Your task to perform on an android device: stop showing notifications on the lock screen Image 0: 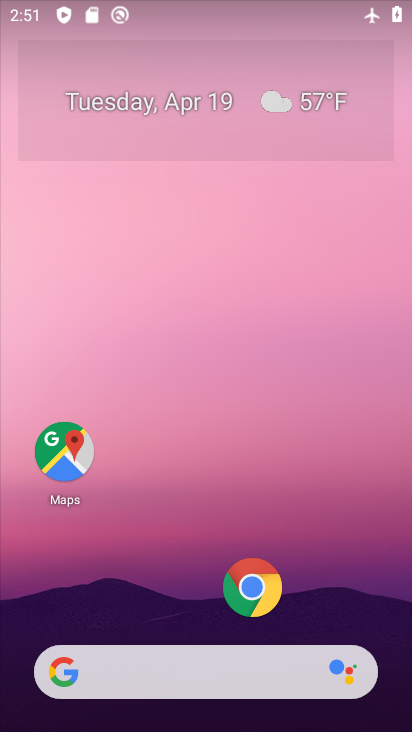
Step 0: drag from (169, 556) to (220, 166)
Your task to perform on an android device: stop showing notifications on the lock screen Image 1: 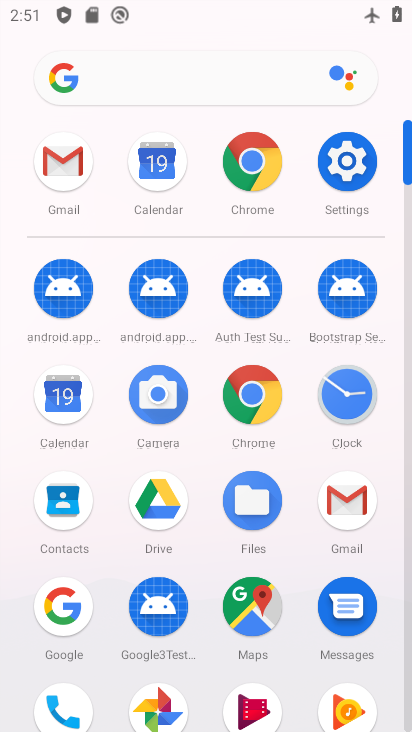
Step 1: click (345, 164)
Your task to perform on an android device: stop showing notifications on the lock screen Image 2: 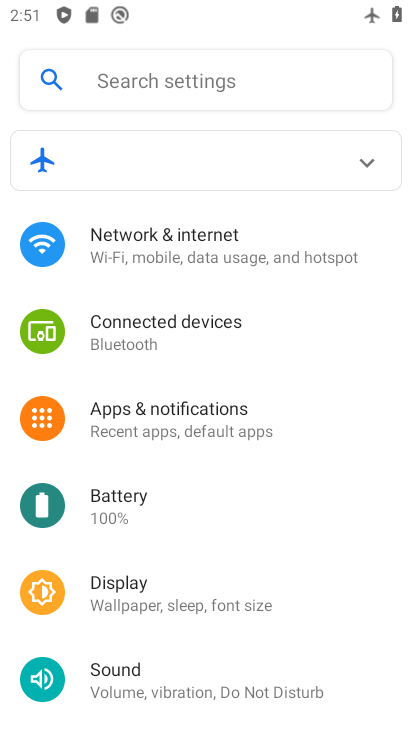
Step 2: click (182, 424)
Your task to perform on an android device: stop showing notifications on the lock screen Image 3: 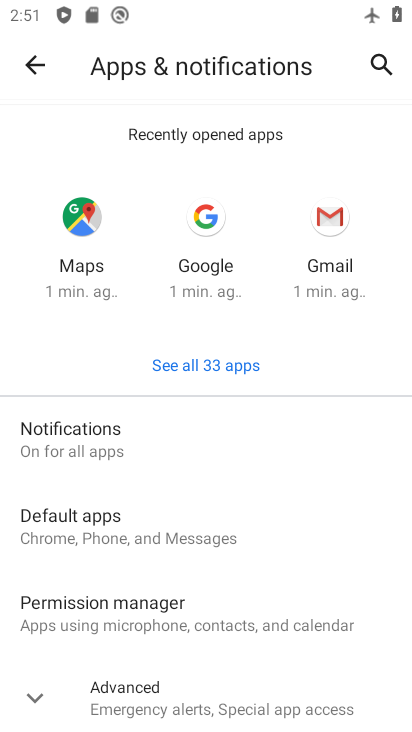
Step 3: click (121, 447)
Your task to perform on an android device: stop showing notifications on the lock screen Image 4: 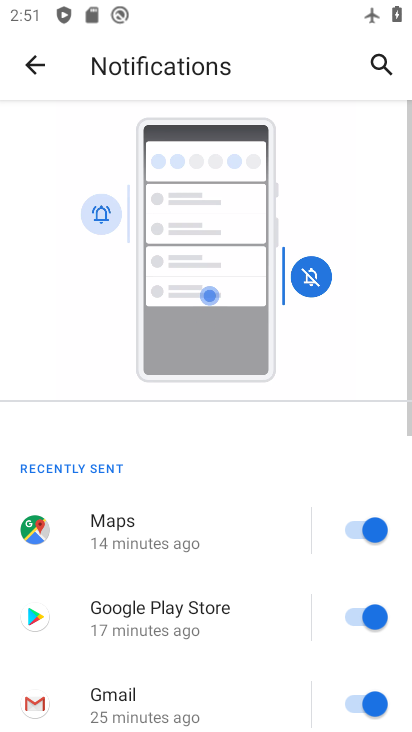
Step 4: drag from (140, 595) to (231, 206)
Your task to perform on an android device: stop showing notifications on the lock screen Image 5: 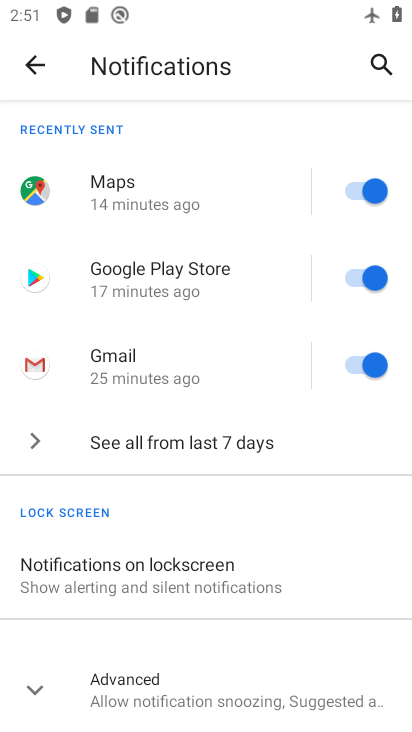
Step 5: drag from (129, 553) to (172, 392)
Your task to perform on an android device: stop showing notifications on the lock screen Image 6: 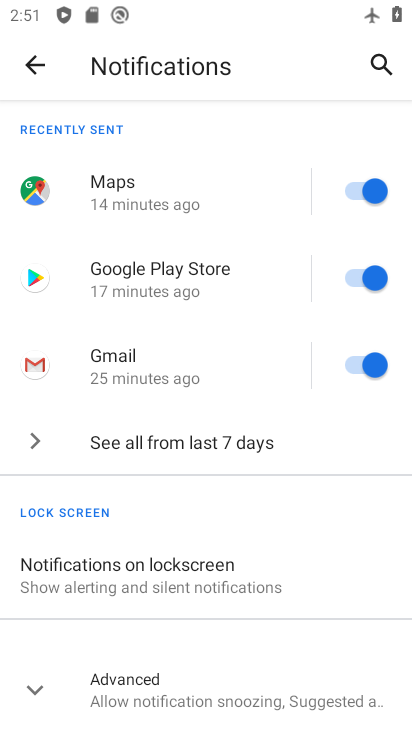
Step 6: click (104, 572)
Your task to perform on an android device: stop showing notifications on the lock screen Image 7: 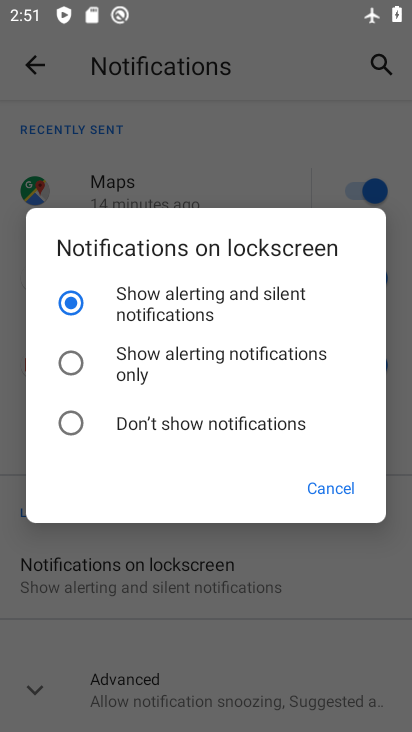
Step 7: click (121, 419)
Your task to perform on an android device: stop showing notifications on the lock screen Image 8: 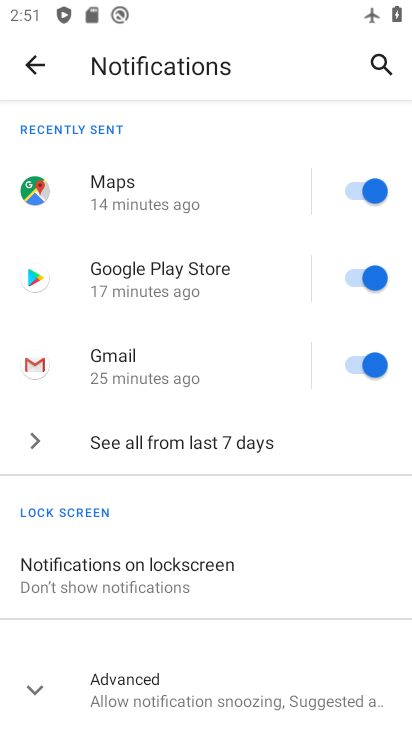
Step 8: task complete